Your task to perform on an android device: What is the news today? Image 0: 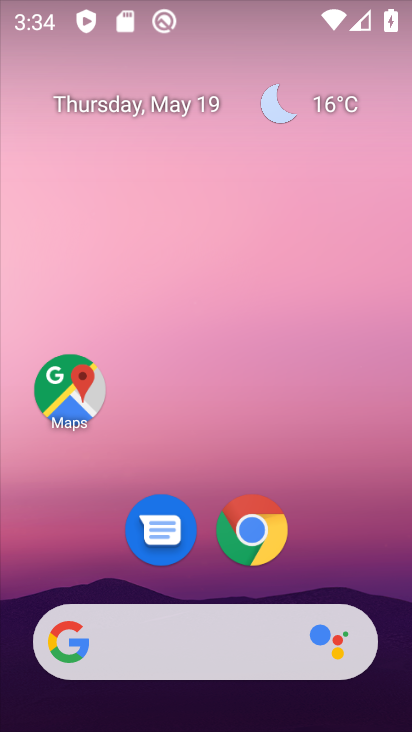
Step 0: drag from (325, 561) to (386, 112)
Your task to perform on an android device: What is the news today? Image 1: 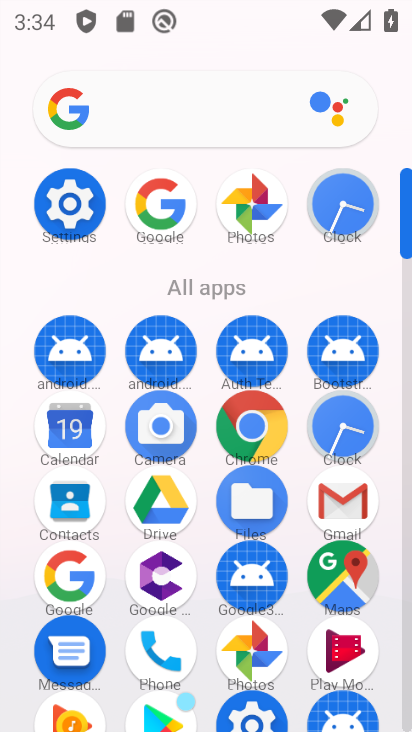
Step 1: click (155, 195)
Your task to perform on an android device: What is the news today? Image 2: 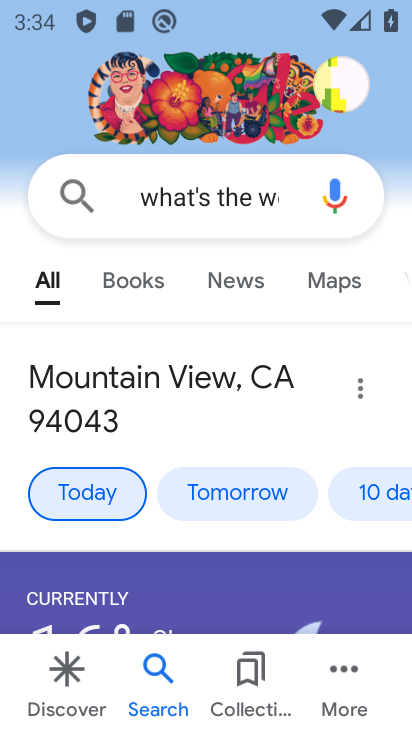
Step 2: click (243, 197)
Your task to perform on an android device: What is the news today? Image 3: 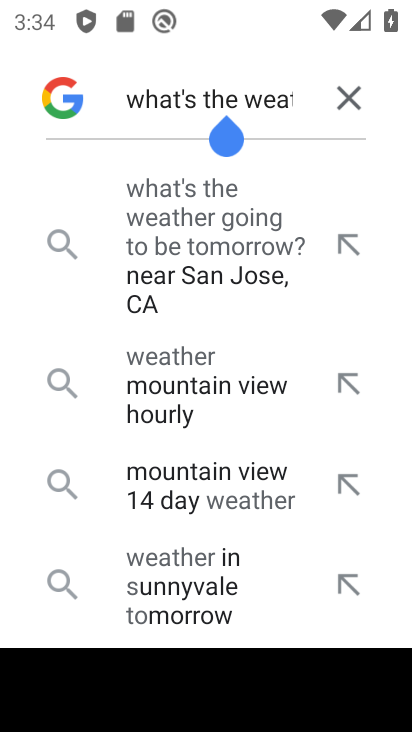
Step 3: click (347, 102)
Your task to perform on an android device: What is the news today? Image 4: 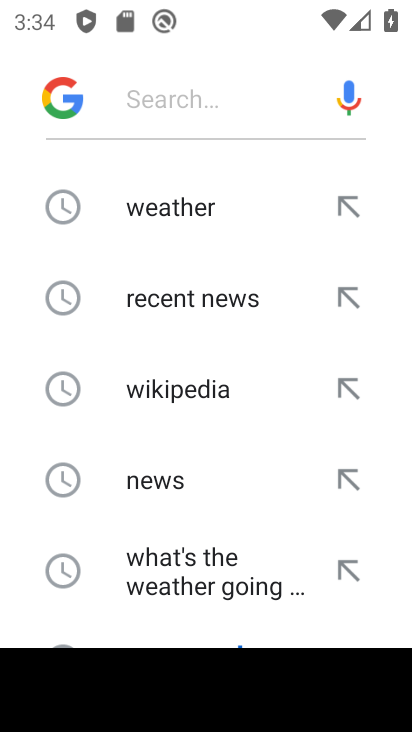
Step 4: click (202, 480)
Your task to perform on an android device: What is the news today? Image 5: 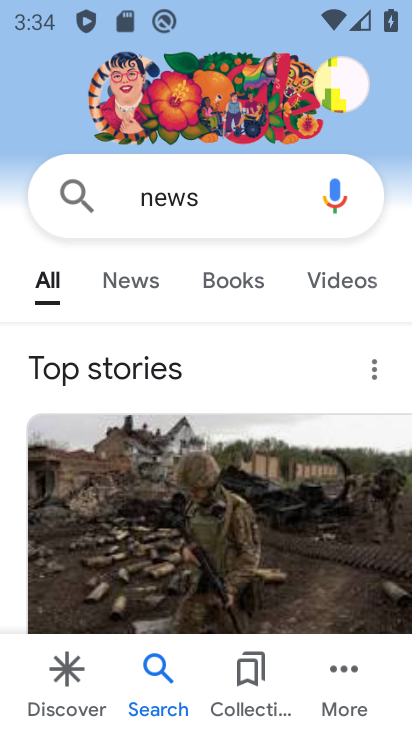
Step 5: task complete